Your task to perform on an android device: Turn off the flashlight Image 0: 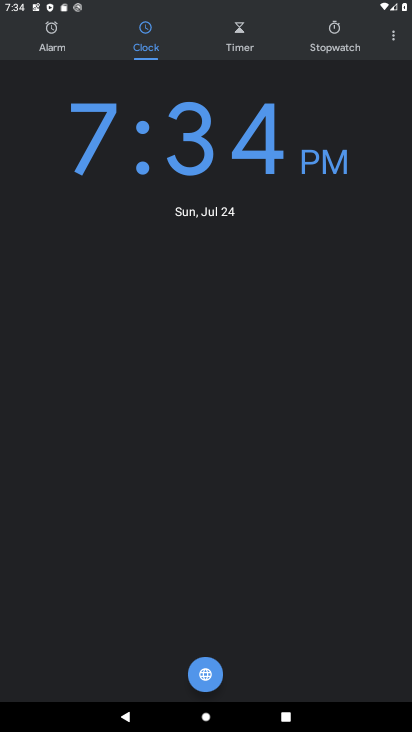
Step 0: press home button
Your task to perform on an android device: Turn off the flashlight Image 1: 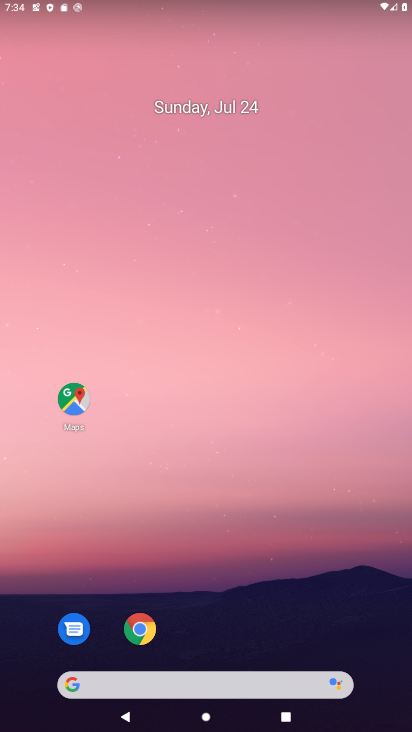
Step 1: drag from (244, 2) to (223, 464)
Your task to perform on an android device: Turn off the flashlight Image 2: 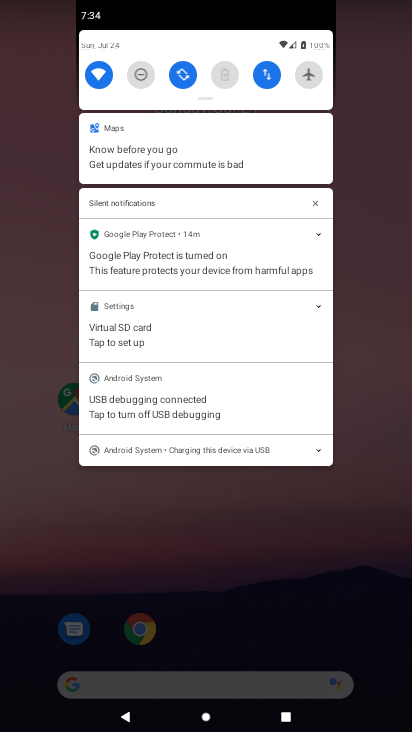
Step 2: drag from (202, 69) to (194, 358)
Your task to perform on an android device: Turn off the flashlight Image 3: 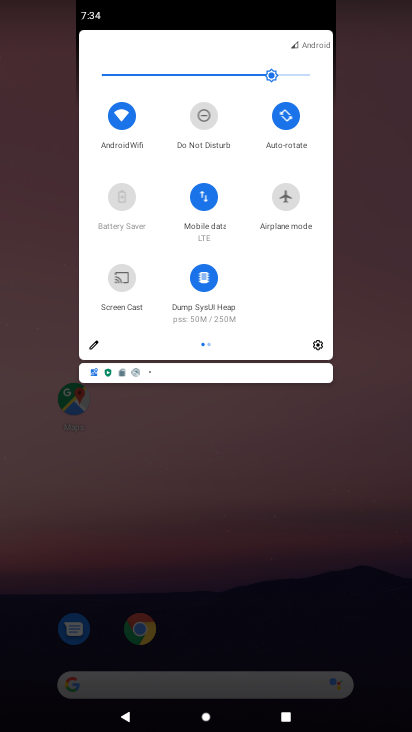
Step 3: click (96, 339)
Your task to perform on an android device: Turn off the flashlight Image 4: 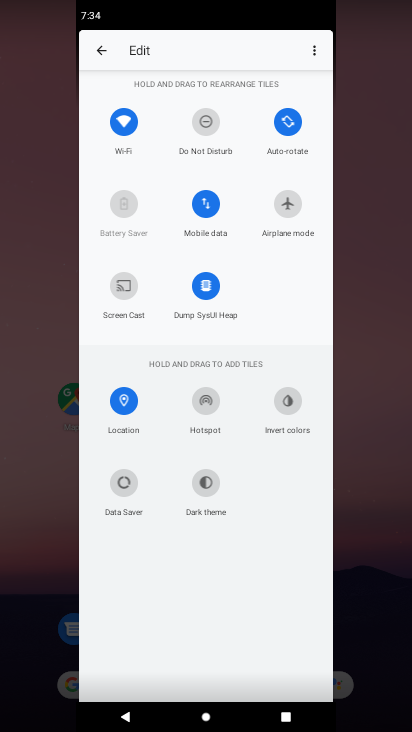
Step 4: task complete